Your task to perform on an android device: toggle wifi Image 0: 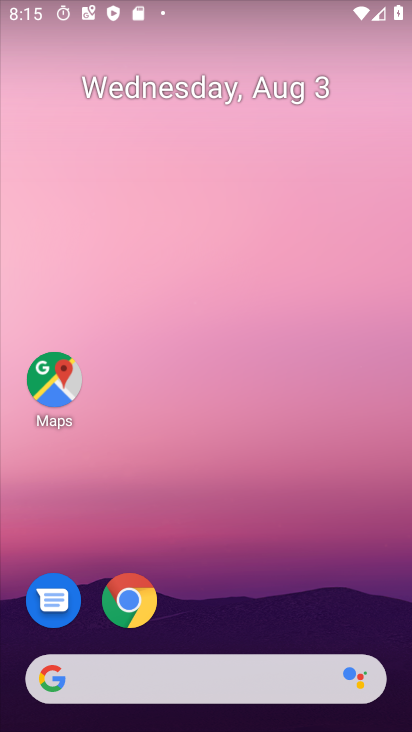
Step 0: drag from (187, 643) to (237, 87)
Your task to perform on an android device: toggle wifi Image 1: 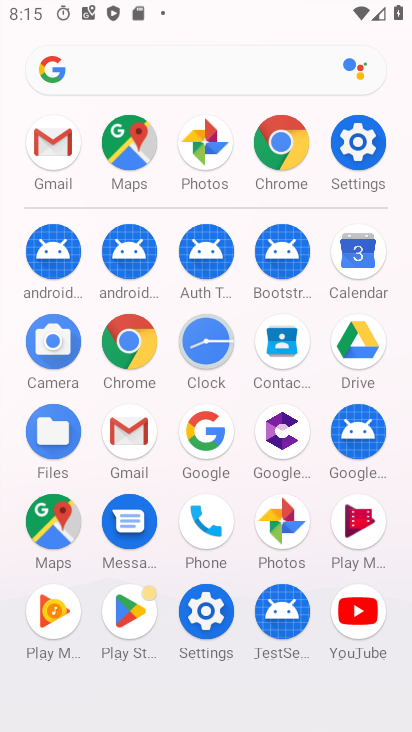
Step 1: click (346, 170)
Your task to perform on an android device: toggle wifi Image 2: 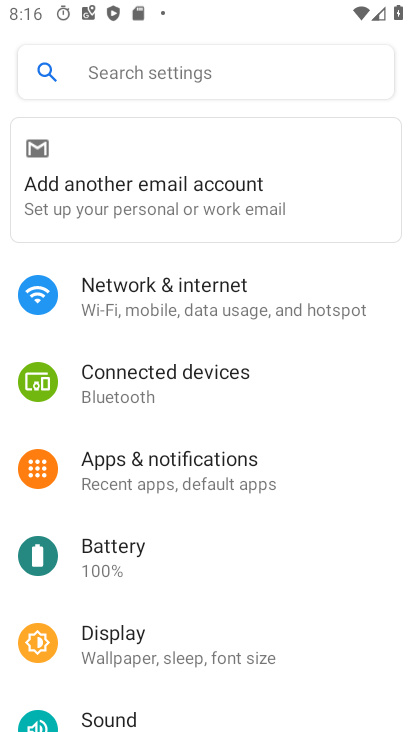
Step 2: click (174, 298)
Your task to perform on an android device: toggle wifi Image 3: 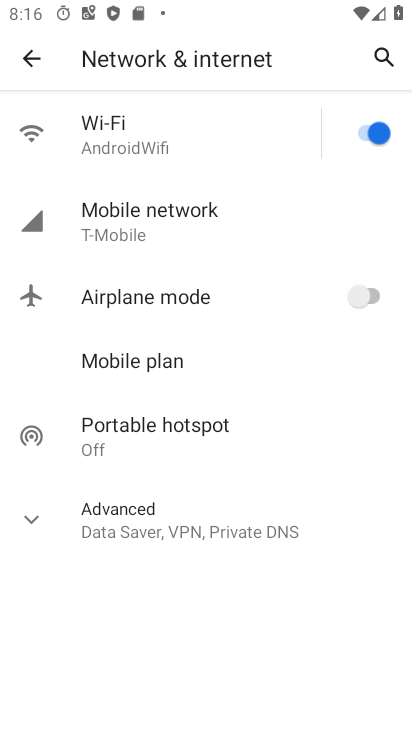
Step 3: click (340, 125)
Your task to perform on an android device: toggle wifi Image 4: 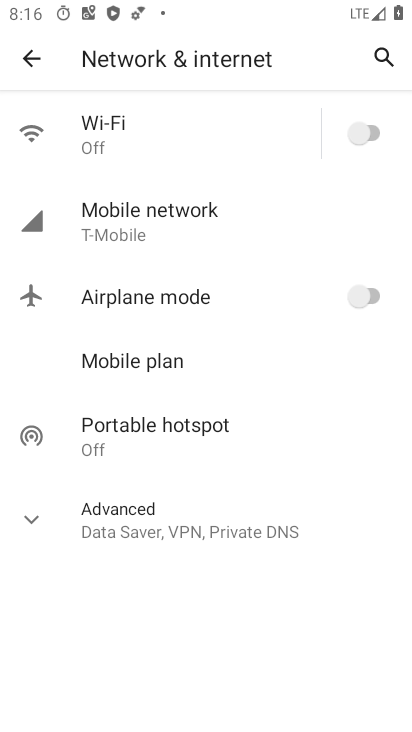
Step 4: task complete